Your task to perform on an android device: empty trash in google photos Image 0: 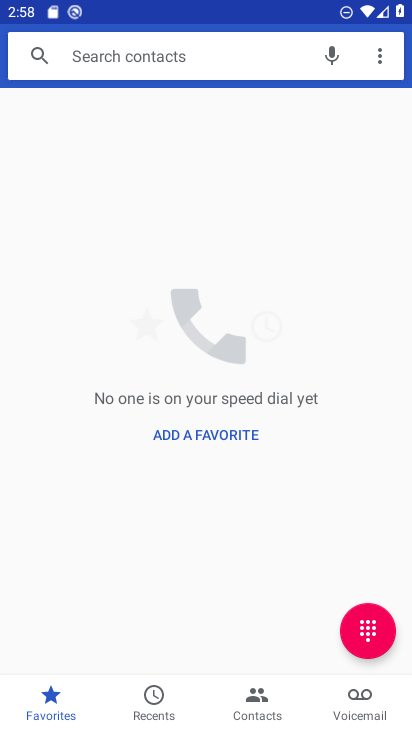
Step 0: press home button
Your task to perform on an android device: empty trash in google photos Image 1: 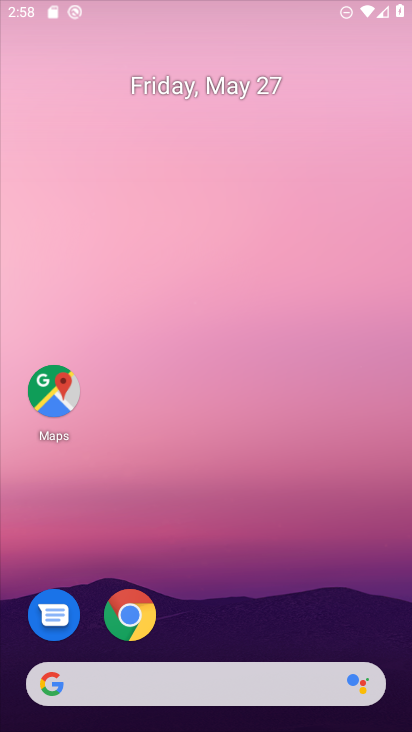
Step 1: drag from (323, 530) to (157, 37)
Your task to perform on an android device: empty trash in google photos Image 2: 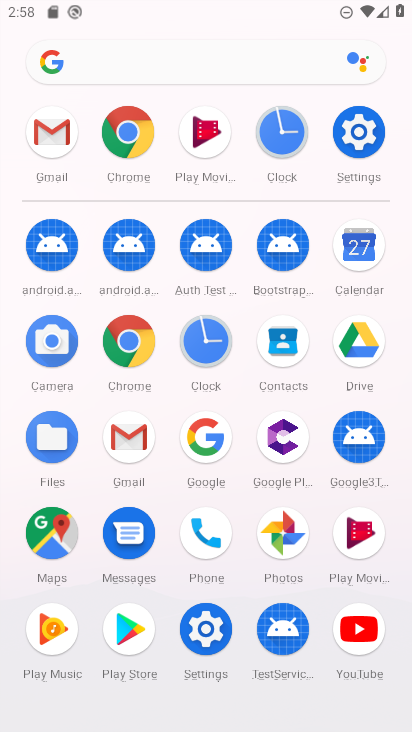
Step 2: click (289, 545)
Your task to perform on an android device: empty trash in google photos Image 3: 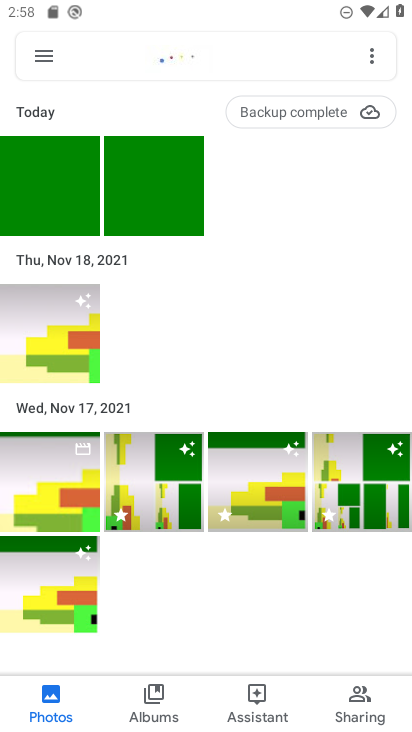
Step 3: click (46, 52)
Your task to perform on an android device: empty trash in google photos Image 4: 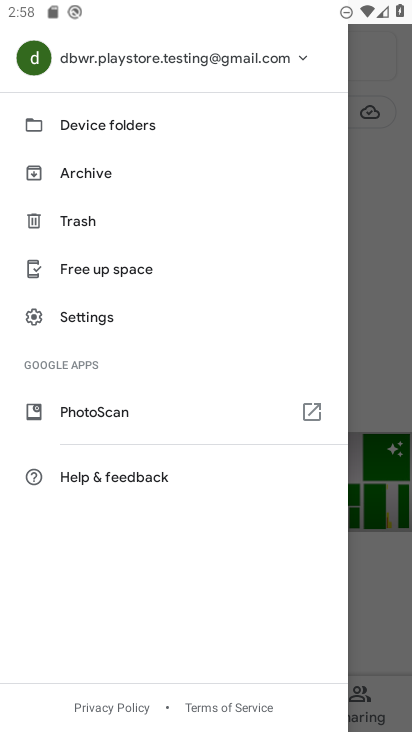
Step 4: click (104, 221)
Your task to perform on an android device: empty trash in google photos Image 5: 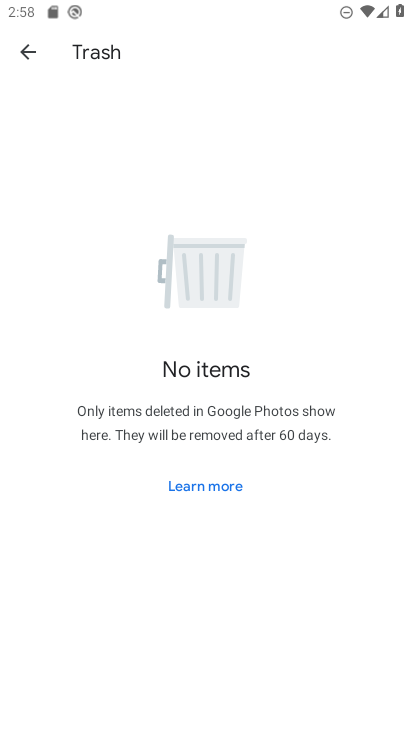
Step 5: task complete